Your task to perform on an android device: snooze an email in the gmail app Image 0: 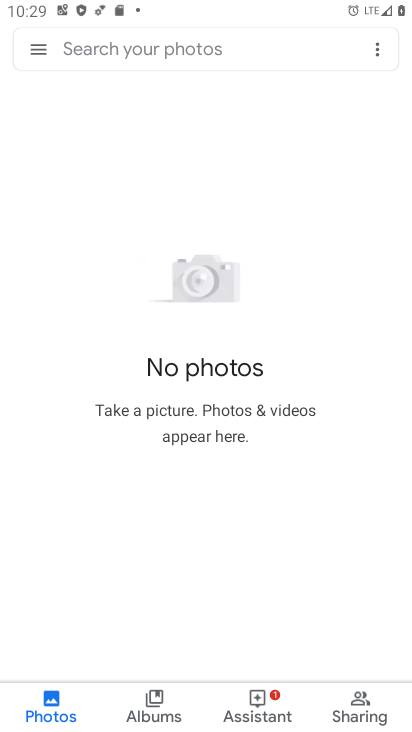
Step 0: press home button
Your task to perform on an android device: snooze an email in the gmail app Image 1: 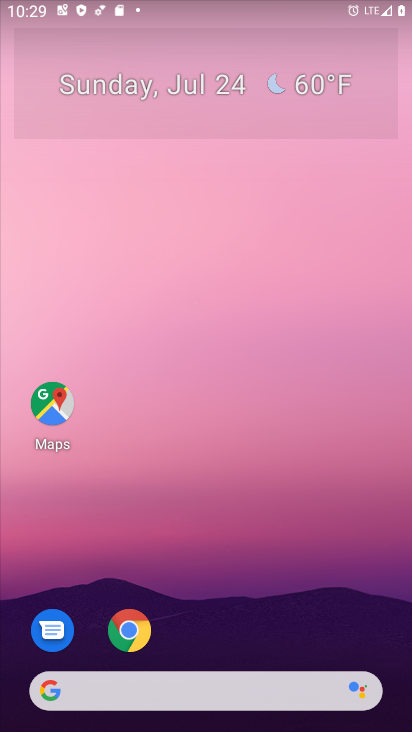
Step 1: drag from (217, 605) to (265, 71)
Your task to perform on an android device: snooze an email in the gmail app Image 2: 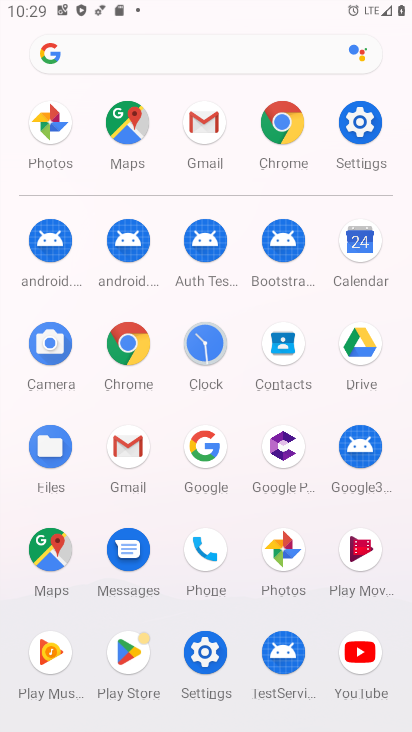
Step 2: click (130, 443)
Your task to perform on an android device: snooze an email in the gmail app Image 3: 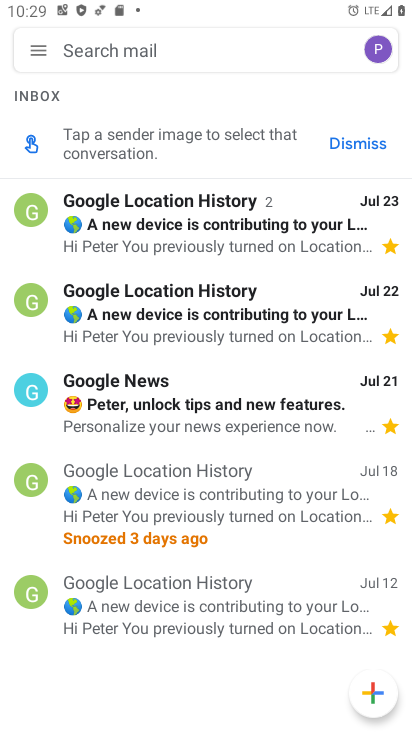
Step 3: click (36, 210)
Your task to perform on an android device: snooze an email in the gmail app Image 4: 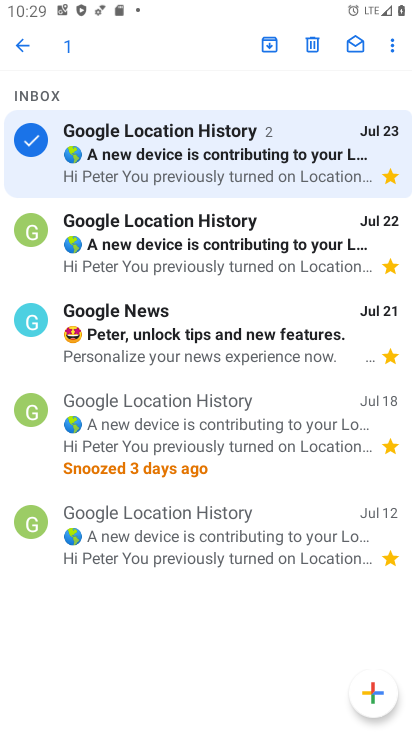
Step 4: click (395, 40)
Your task to perform on an android device: snooze an email in the gmail app Image 5: 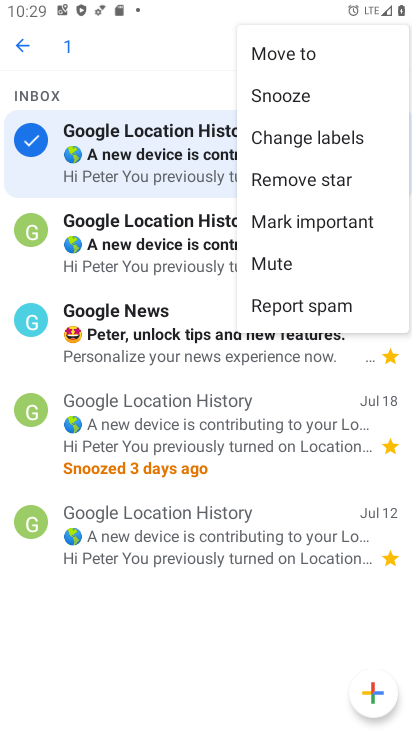
Step 5: click (298, 95)
Your task to perform on an android device: snooze an email in the gmail app Image 6: 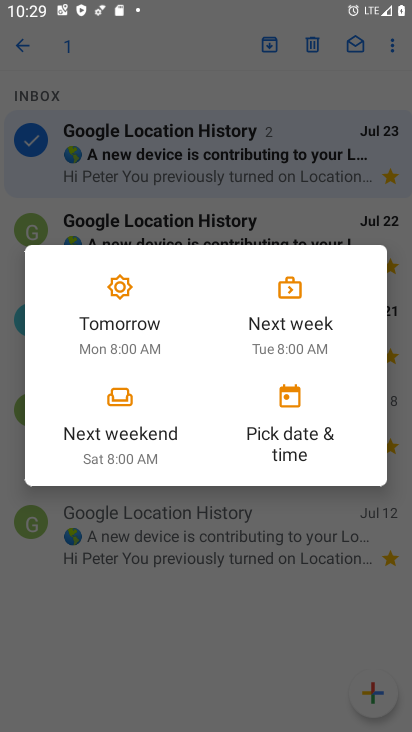
Step 6: click (124, 324)
Your task to perform on an android device: snooze an email in the gmail app Image 7: 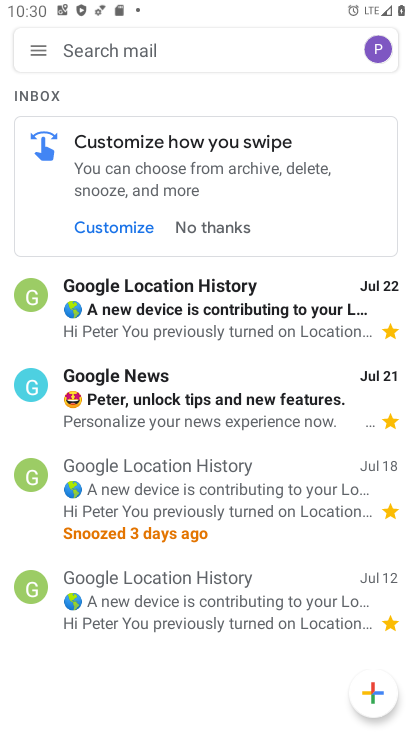
Step 7: task complete